Your task to perform on an android device: Go to Maps Image 0: 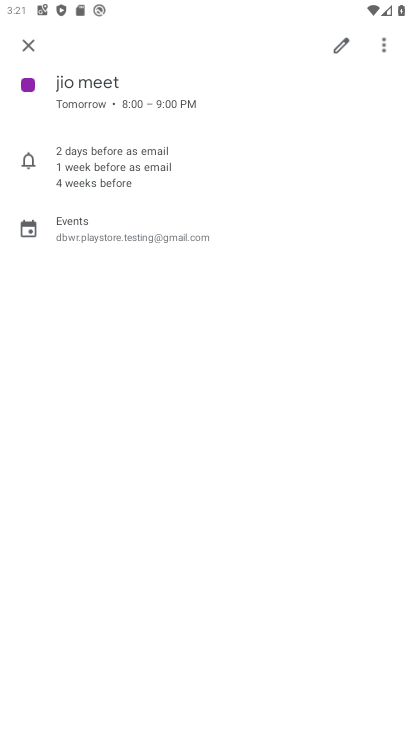
Step 0: press back button
Your task to perform on an android device: Go to Maps Image 1: 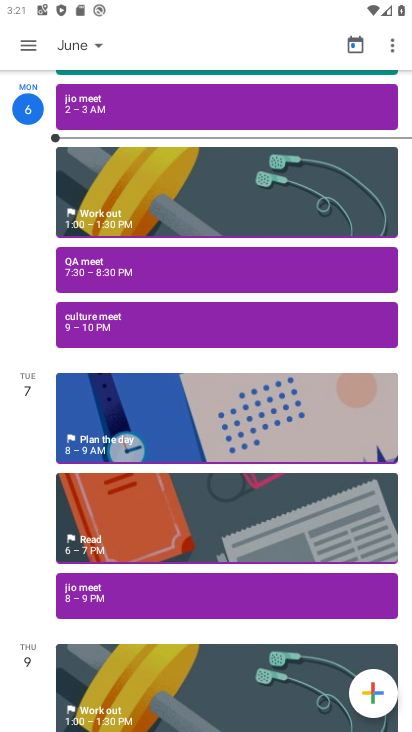
Step 1: press back button
Your task to perform on an android device: Go to Maps Image 2: 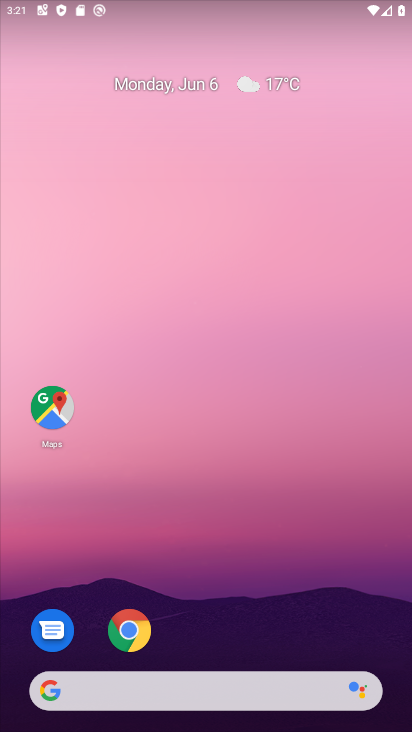
Step 2: click (66, 405)
Your task to perform on an android device: Go to Maps Image 3: 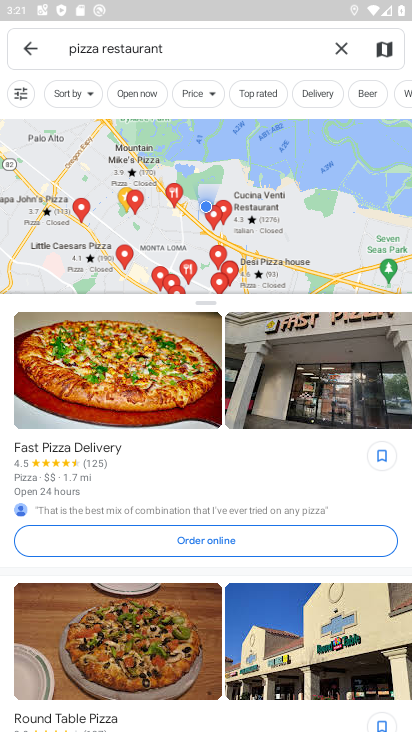
Step 3: task complete